Your task to perform on an android device: Search for Mexican restaurants on Maps Image 0: 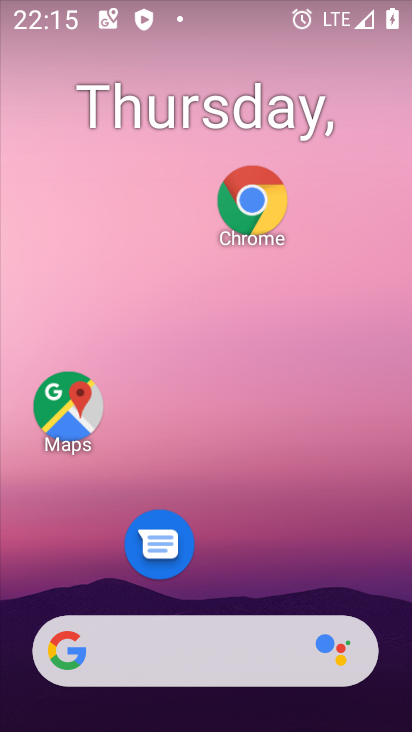
Step 0: click (65, 437)
Your task to perform on an android device: Search for Mexican restaurants on Maps Image 1: 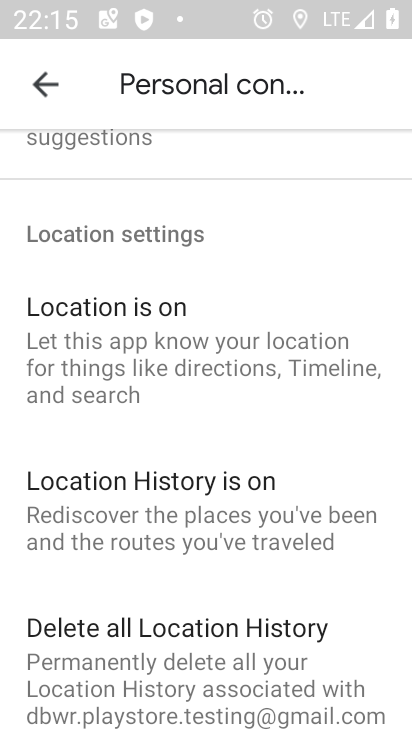
Step 1: click (51, 88)
Your task to perform on an android device: Search for Mexican restaurants on Maps Image 2: 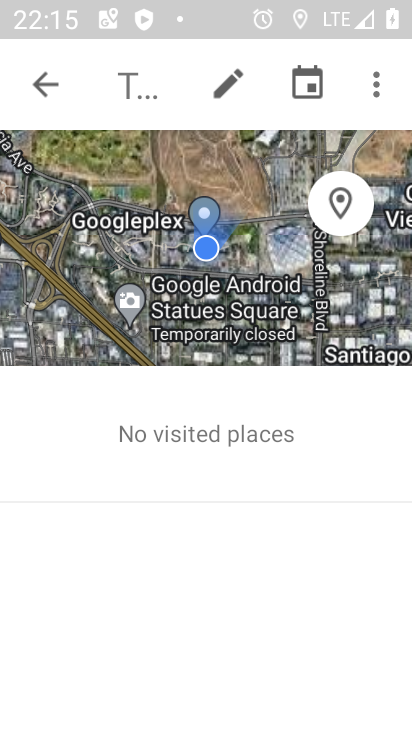
Step 2: click (52, 59)
Your task to perform on an android device: Search for Mexican restaurants on Maps Image 3: 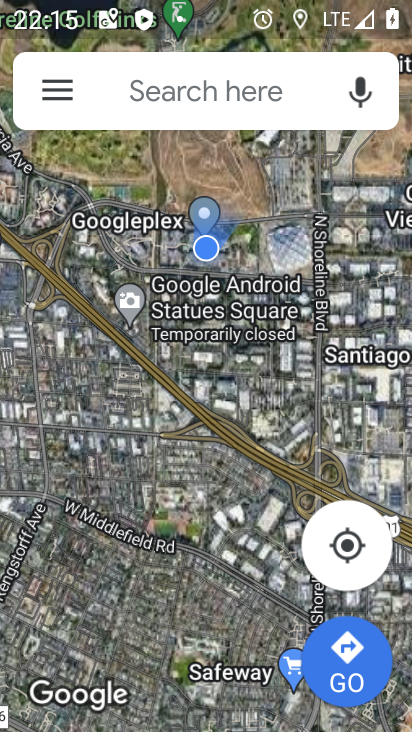
Step 3: click (151, 83)
Your task to perform on an android device: Search for Mexican restaurants on Maps Image 4: 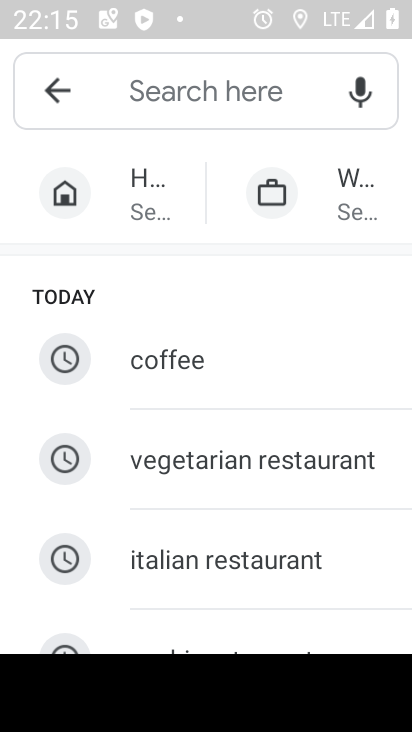
Step 4: drag from (188, 602) to (220, 146)
Your task to perform on an android device: Search for Mexican restaurants on Maps Image 5: 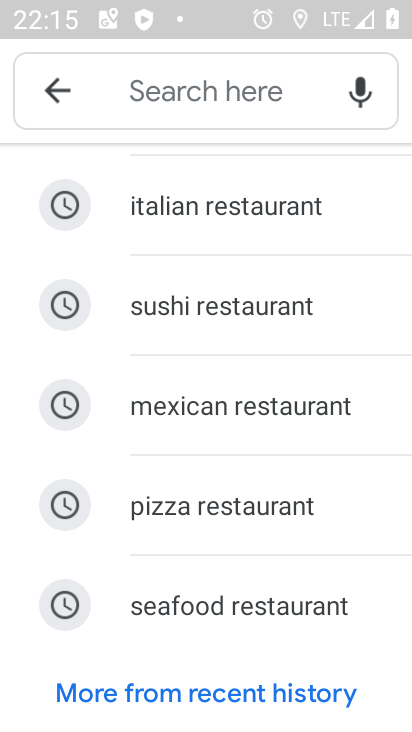
Step 5: click (186, 406)
Your task to perform on an android device: Search for Mexican restaurants on Maps Image 6: 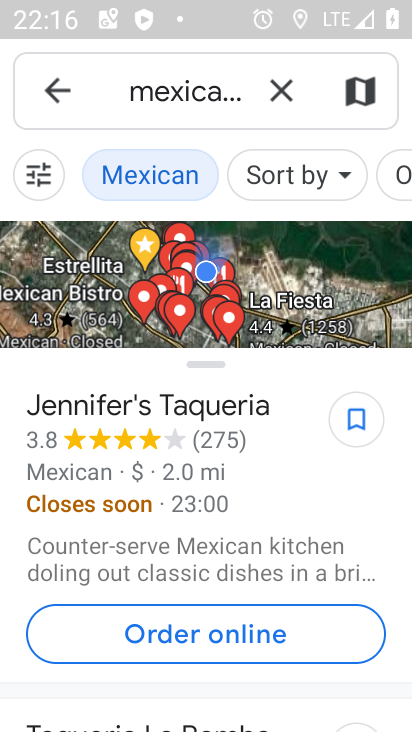
Step 6: task complete